Your task to perform on an android device: remove spam from my inbox in the gmail app Image 0: 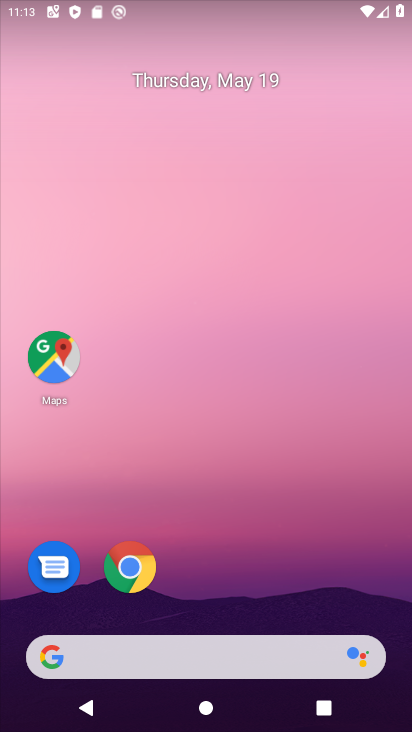
Step 0: drag from (394, 615) to (316, 62)
Your task to perform on an android device: remove spam from my inbox in the gmail app Image 1: 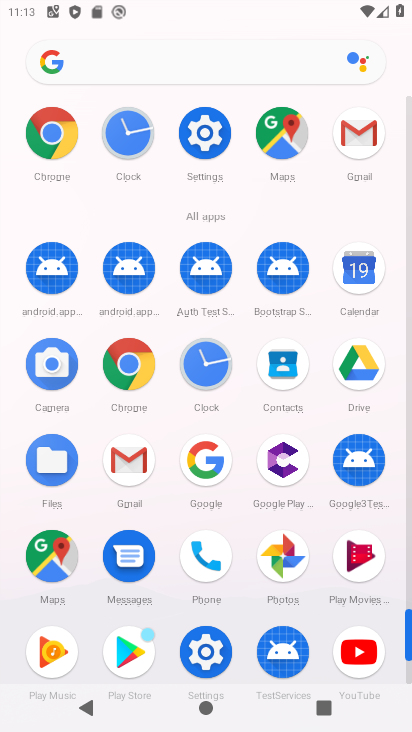
Step 1: click (125, 458)
Your task to perform on an android device: remove spam from my inbox in the gmail app Image 2: 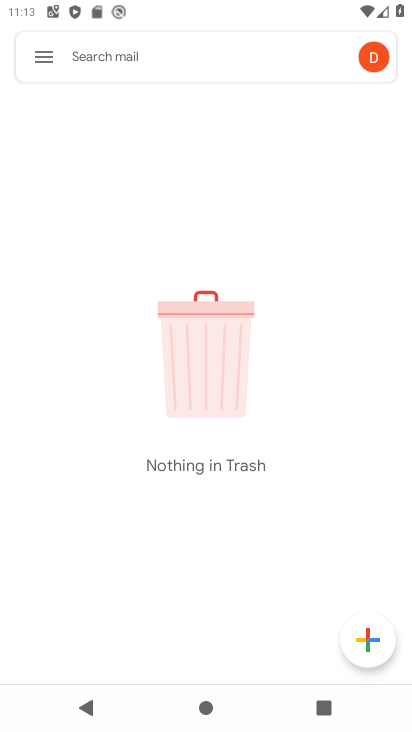
Step 2: click (38, 56)
Your task to perform on an android device: remove spam from my inbox in the gmail app Image 3: 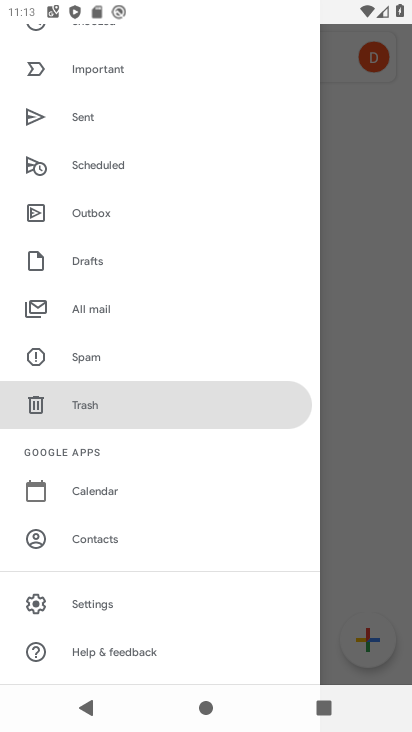
Step 3: click (91, 358)
Your task to perform on an android device: remove spam from my inbox in the gmail app Image 4: 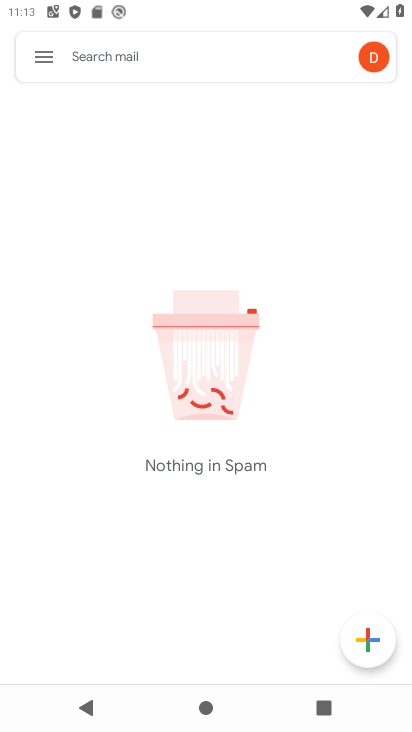
Step 4: task complete